Your task to perform on an android device: add a contact Image 0: 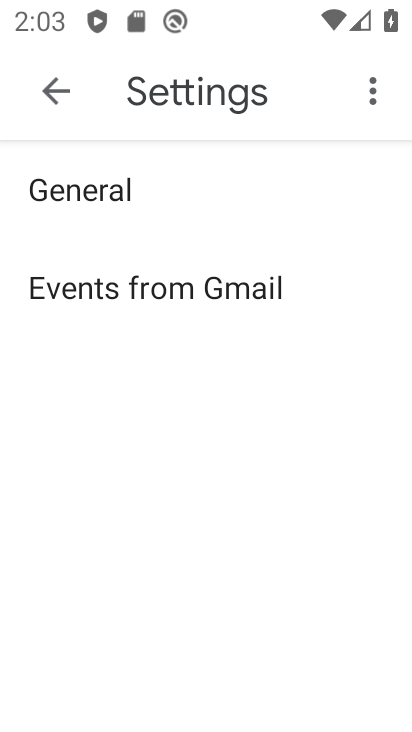
Step 0: press home button
Your task to perform on an android device: add a contact Image 1: 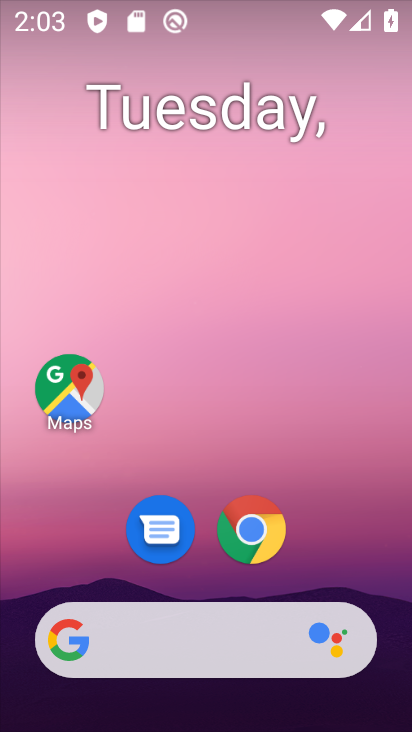
Step 1: drag from (323, 542) to (323, 86)
Your task to perform on an android device: add a contact Image 2: 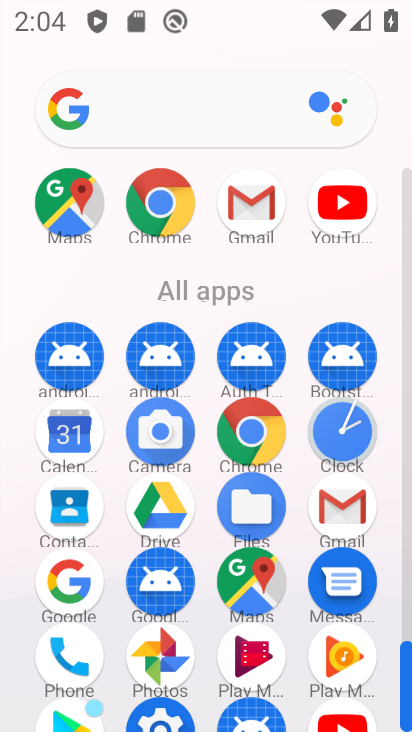
Step 2: click (72, 508)
Your task to perform on an android device: add a contact Image 3: 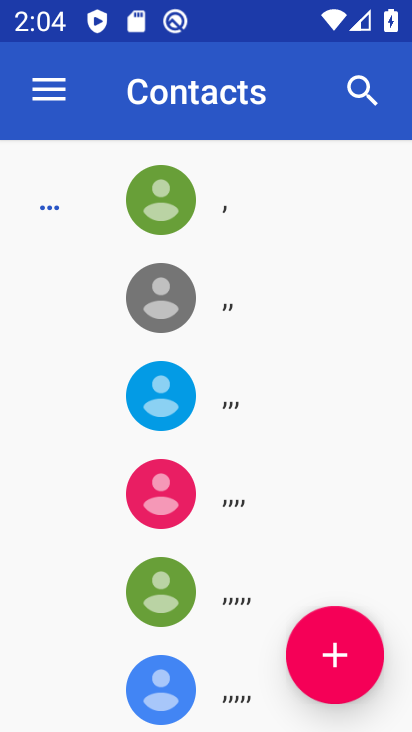
Step 3: click (313, 635)
Your task to perform on an android device: add a contact Image 4: 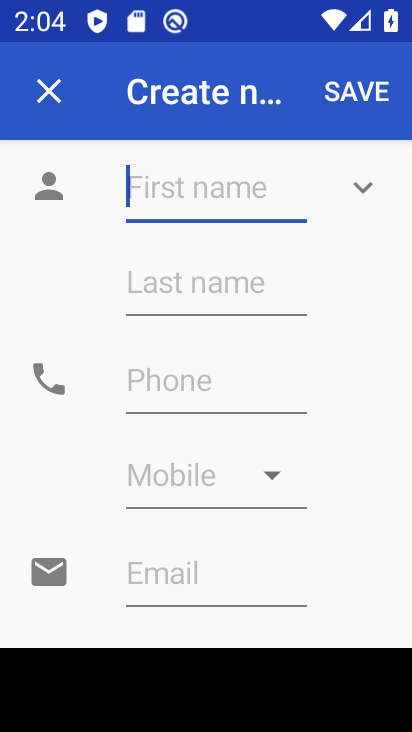
Step 4: type "bhnjmklp"
Your task to perform on an android device: add a contact Image 5: 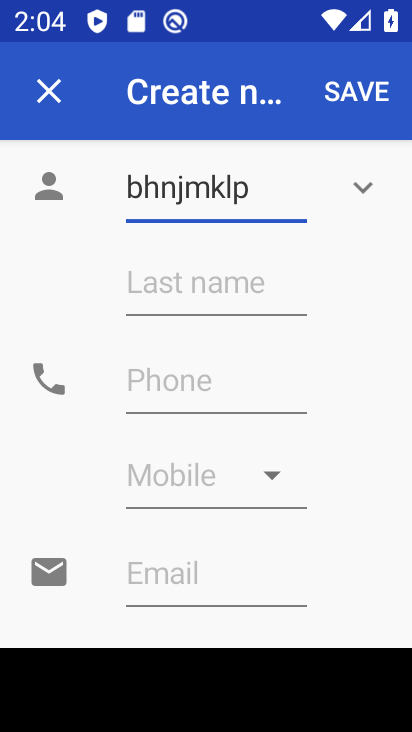
Step 5: click (184, 387)
Your task to perform on an android device: add a contact Image 6: 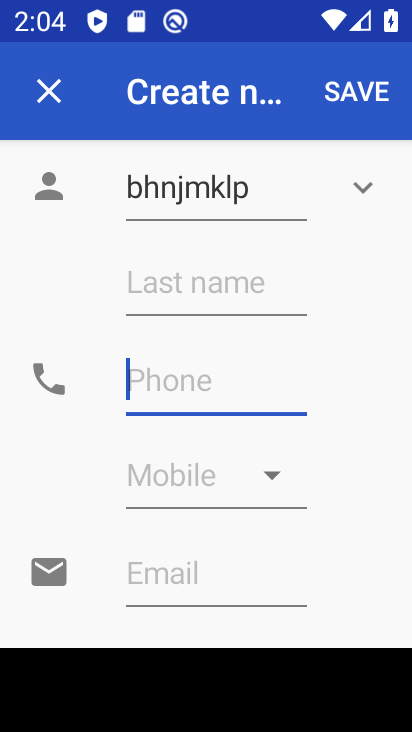
Step 6: type "234556687"
Your task to perform on an android device: add a contact Image 7: 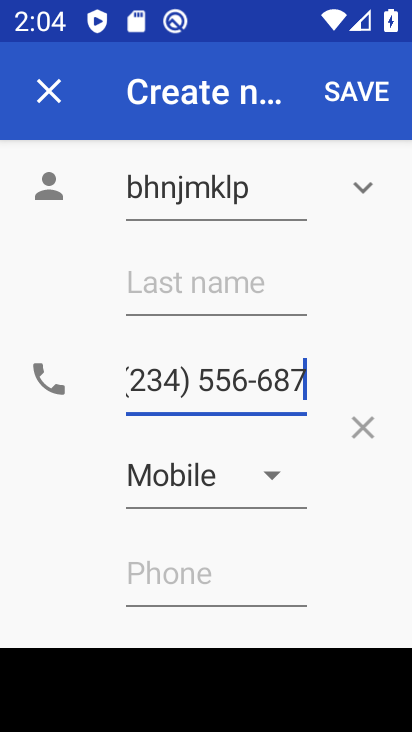
Step 7: click (308, 76)
Your task to perform on an android device: add a contact Image 8: 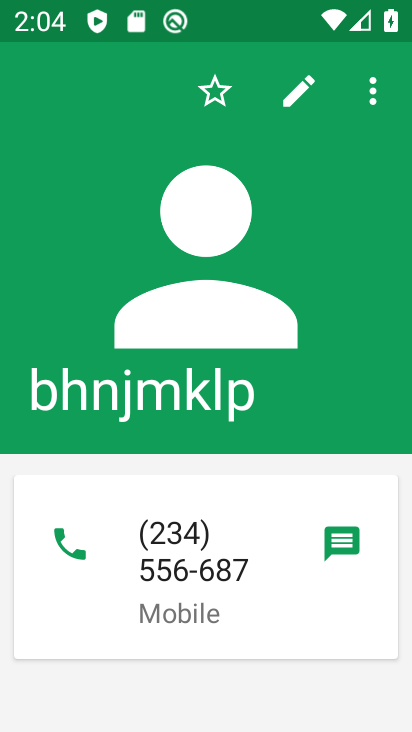
Step 8: task complete